Your task to perform on an android device: turn off smart reply in the gmail app Image 0: 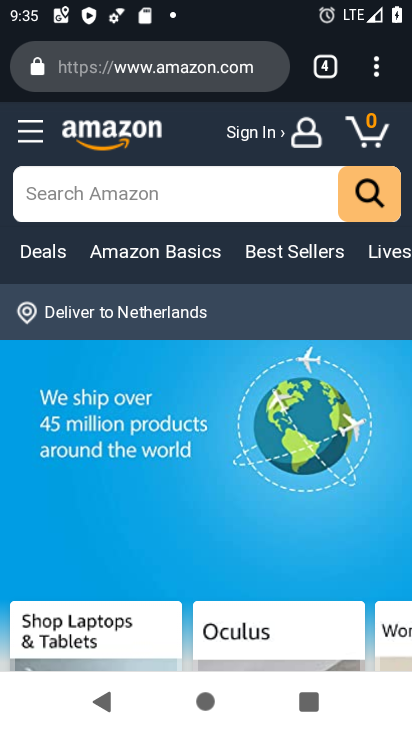
Step 0: press home button
Your task to perform on an android device: turn off smart reply in the gmail app Image 1: 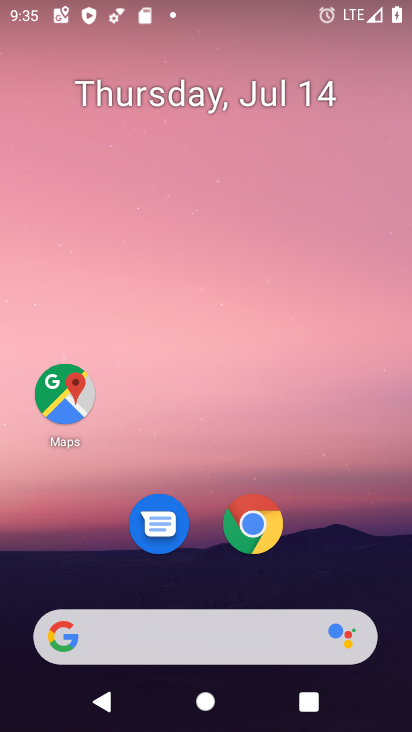
Step 1: drag from (326, 538) to (306, 74)
Your task to perform on an android device: turn off smart reply in the gmail app Image 2: 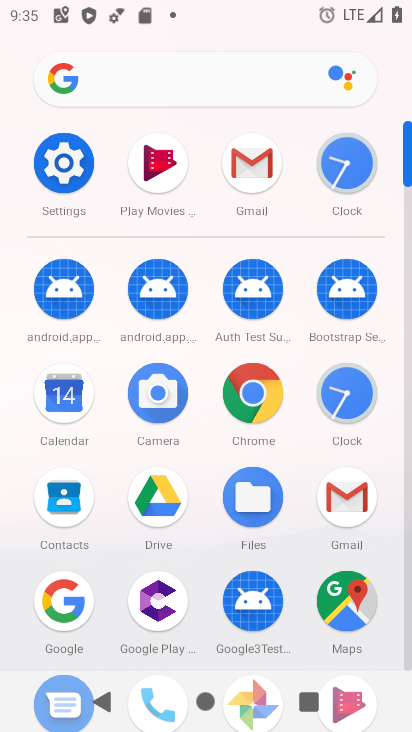
Step 2: click (249, 171)
Your task to perform on an android device: turn off smart reply in the gmail app Image 3: 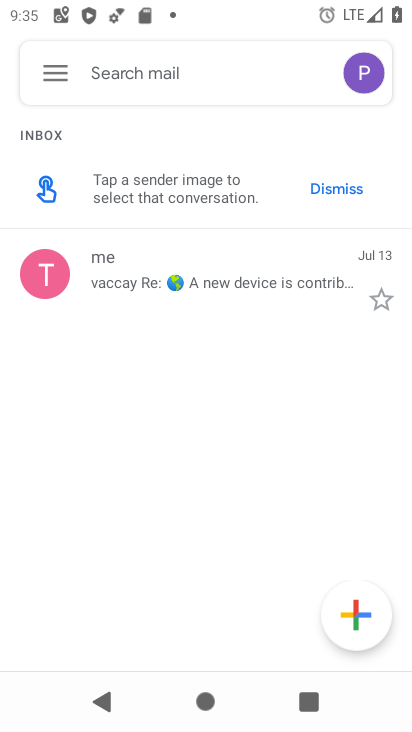
Step 3: click (57, 73)
Your task to perform on an android device: turn off smart reply in the gmail app Image 4: 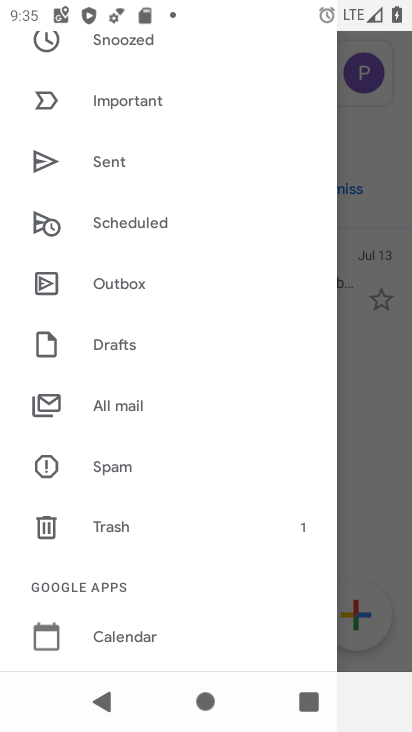
Step 4: drag from (182, 406) to (217, 106)
Your task to perform on an android device: turn off smart reply in the gmail app Image 5: 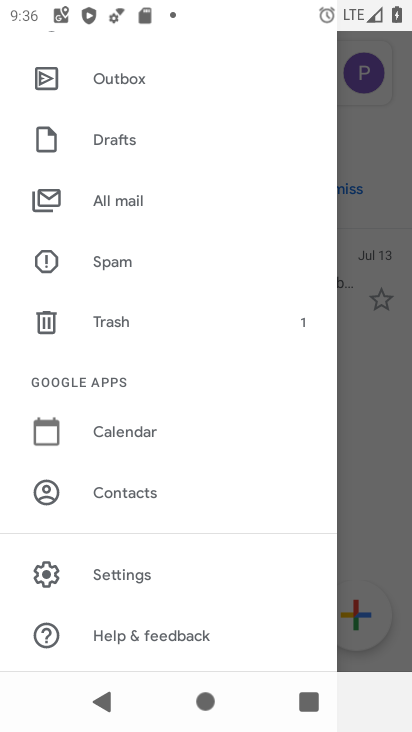
Step 5: click (129, 577)
Your task to perform on an android device: turn off smart reply in the gmail app Image 6: 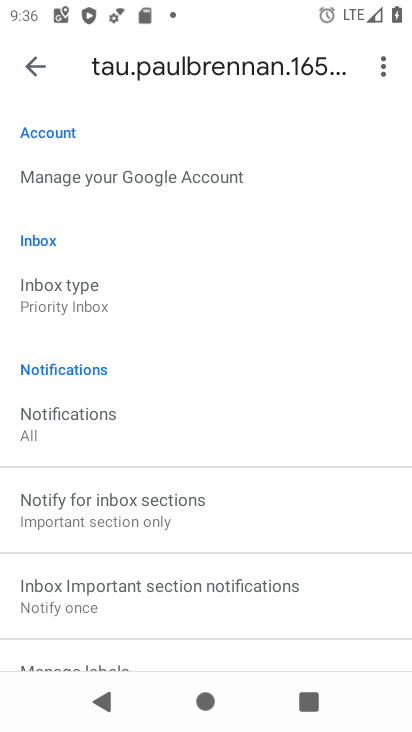
Step 6: drag from (250, 440) to (263, 124)
Your task to perform on an android device: turn off smart reply in the gmail app Image 7: 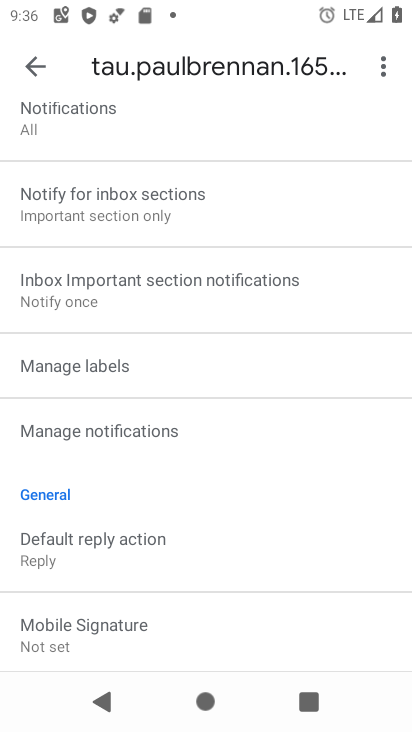
Step 7: drag from (185, 482) to (202, 90)
Your task to perform on an android device: turn off smart reply in the gmail app Image 8: 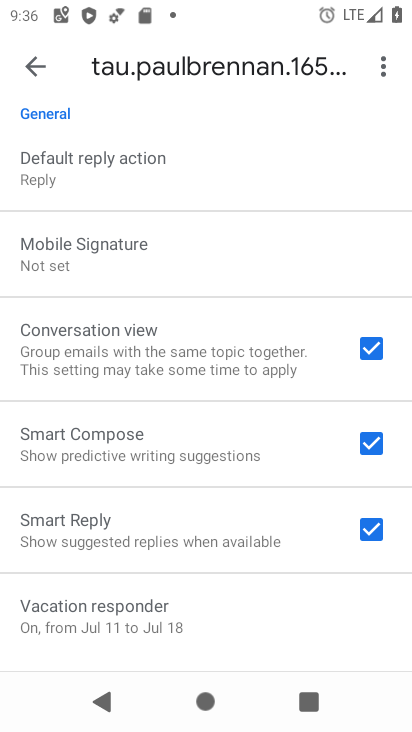
Step 8: click (370, 534)
Your task to perform on an android device: turn off smart reply in the gmail app Image 9: 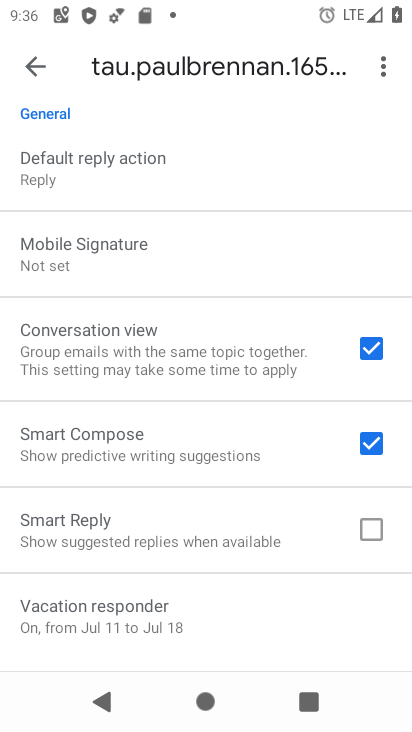
Step 9: task complete